Your task to perform on an android device: see creations saved in the google photos Image 0: 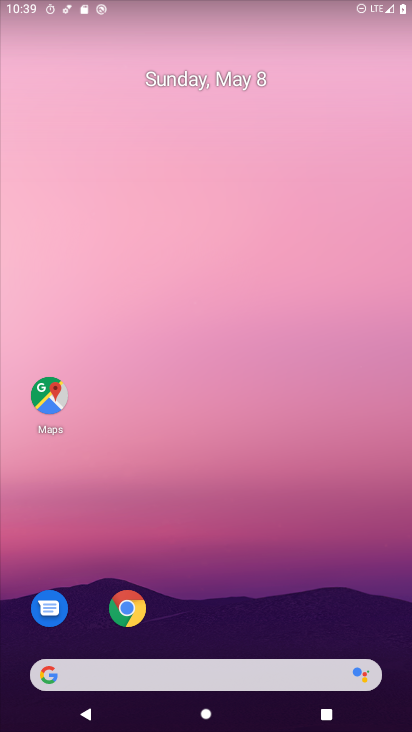
Step 0: drag from (103, 632) to (154, 122)
Your task to perform on an android device: see creations saved in the google photos Image 1: 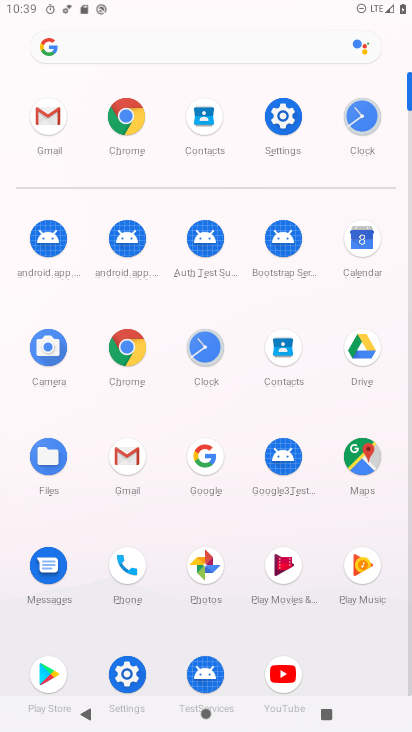
Step 1: click (213, 562)
Your task to perform on an android device: see creations saved in the google photos Image 2: 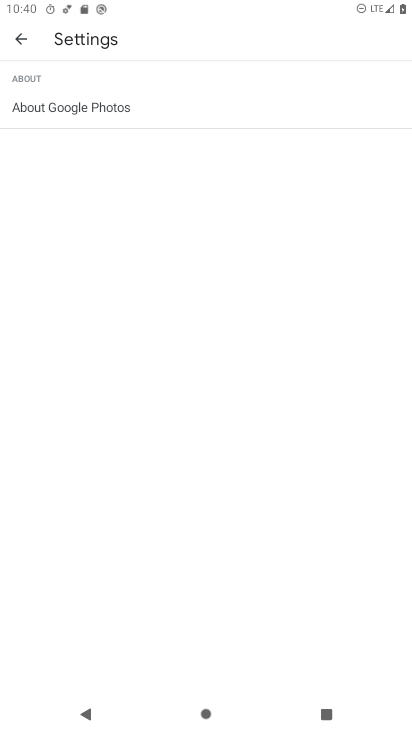
Step 2: click (16, 43)
Your task to perform on an android device: see creations saved in the google photos Image 3: 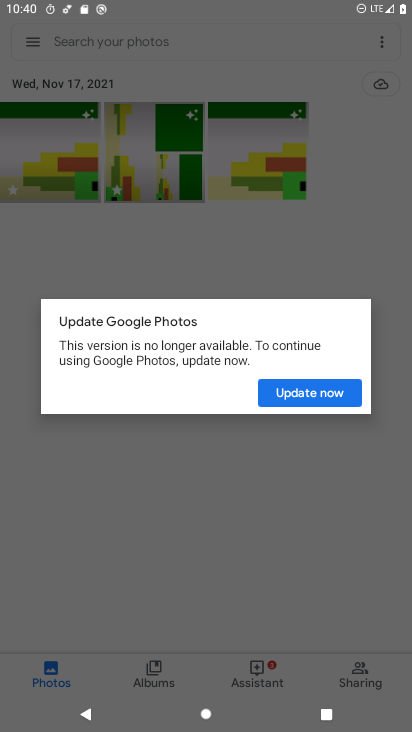
Step 3: click (218, 465)
Your task to perform on an android device: see creations saved in the google photos Image 4: 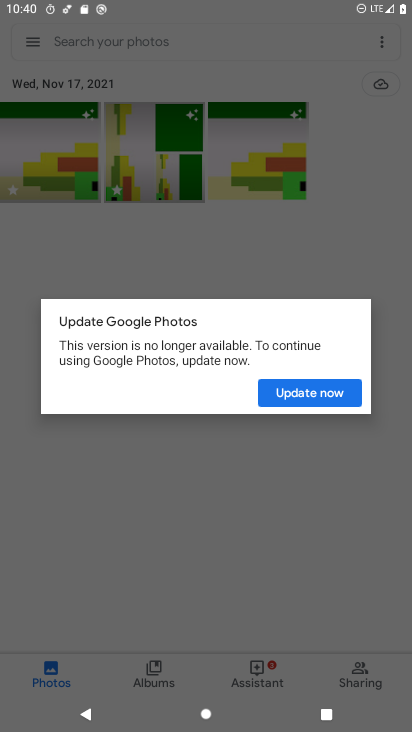
Step 4: click (290, 403)
Your task to perform on an android device: see creations saved in the google photos Image 5: 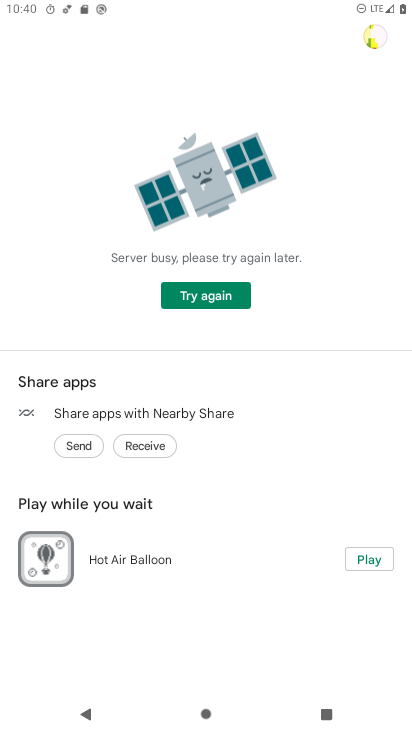
Step 5: task complete